Your task to perform on an android device: turn on sleep mode Image 0: 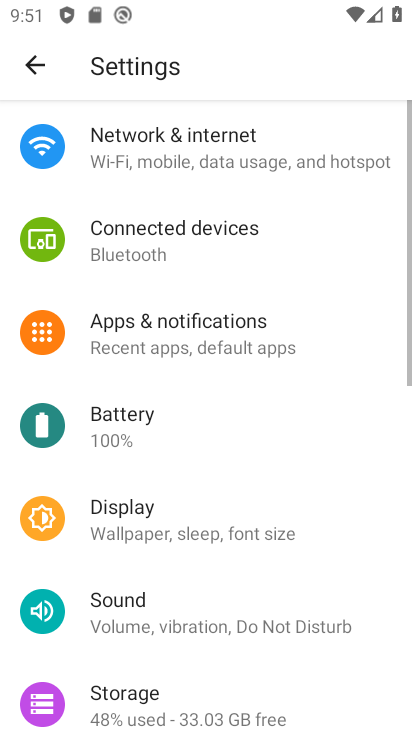
Step 0: press back button
Your task to perform on an android device: turn on sleep mode Image 1: 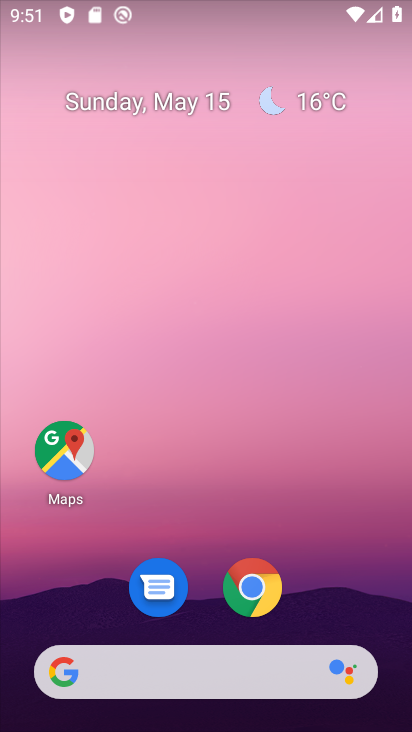
Step 1: drag from (352, 577) to (299, 7)
Your task to perform on an android device: turn on sleep mode Image 2: 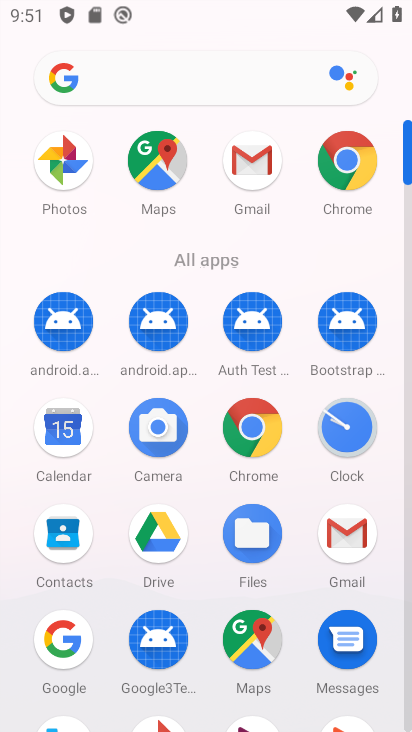
Step 2: click (18, 239)
Your task to perform on an android device: turn on sleep mode Image 3: 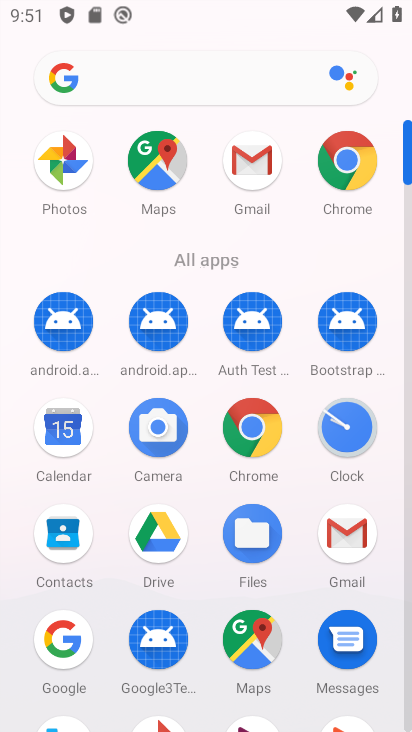
Step 3: drag from (6, 535) to (28, 191)
Your task to perform on an android device: turn on sleep mode Image 4: 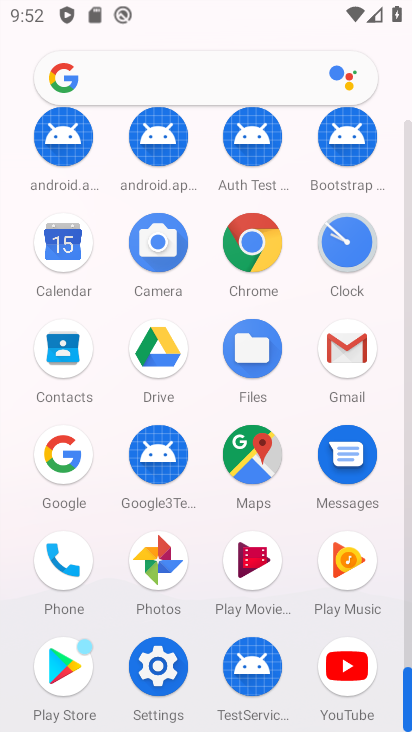
Step 4: click (155, 661)
Your task to perform on an android device: turn on sleep mode Image 5: 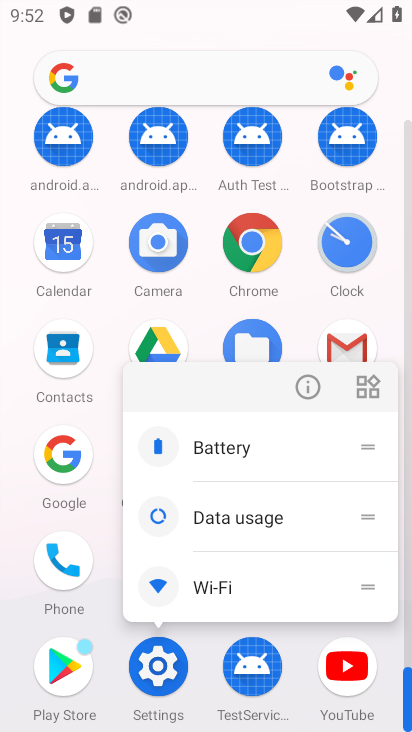
Step 5: click (155, 661)
Your task to perform on an android device: turn on sleep mode Image 6: 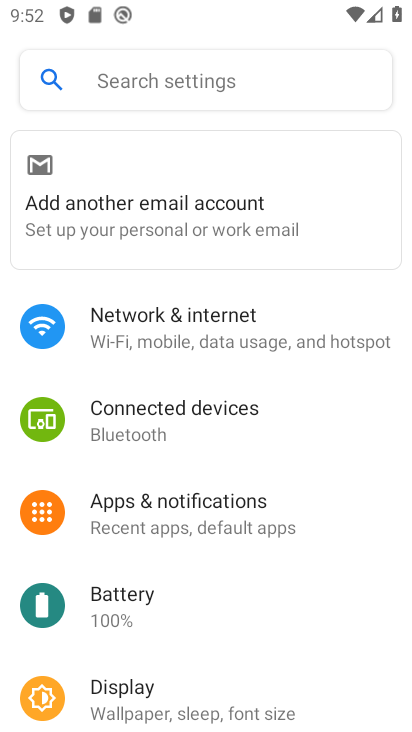
Step 6: drag from (237, 551) to (272, 175)
Your task to perform on an android device: turn on sleep mode Image 7: 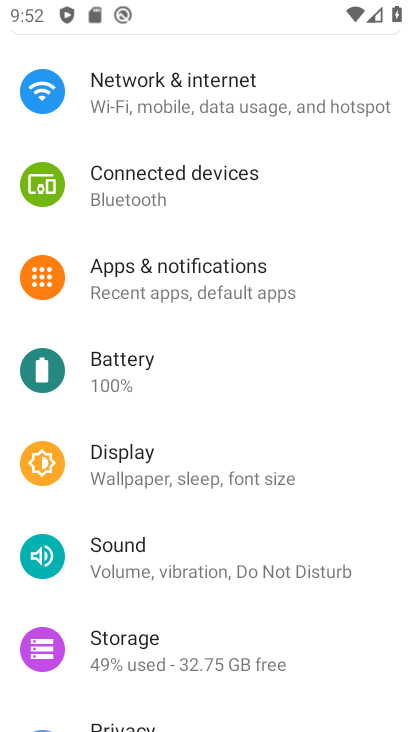
Step 7: click (224, 467)
Your task to perform on an android device: turn on sleep mode Image 8: 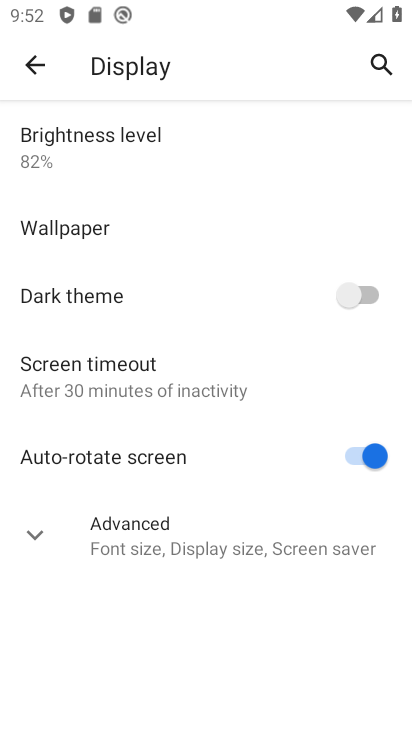
Step 8: click (43, 528)
Your task to perform on an android device: turn on sleep mode Image 9: 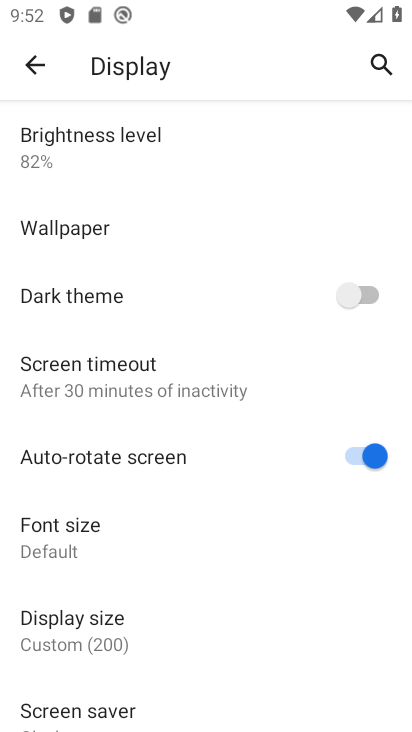
Step 9: task complete